Your task to perform on an android device: Search for seafood restaurants on Google Maps Image 0: 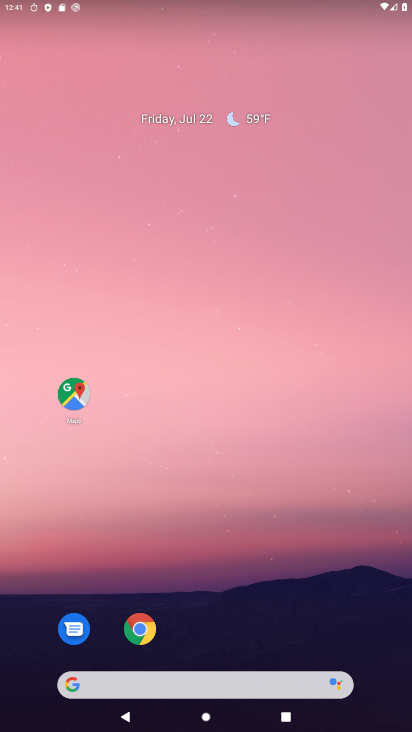
Step 0: drag from (241, 689) to (365, 0)
Your task to perform on an android device: Search for seafood restaurants on Google Maps Image 1: 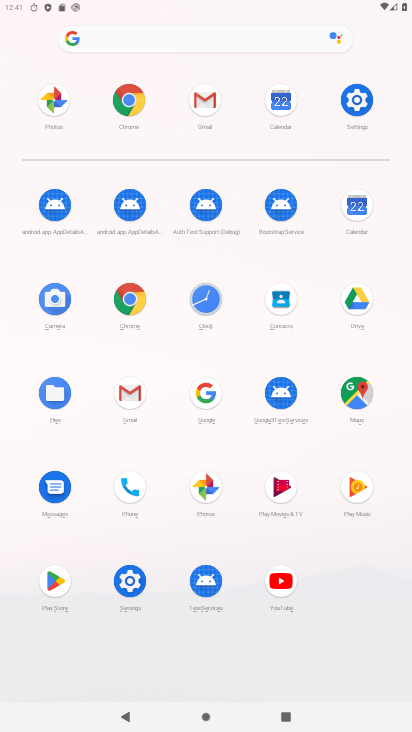
Step 1: click (357, 391)
Your task to perform on an android device: Search for seafood restaurants on Google Maps Image 2: 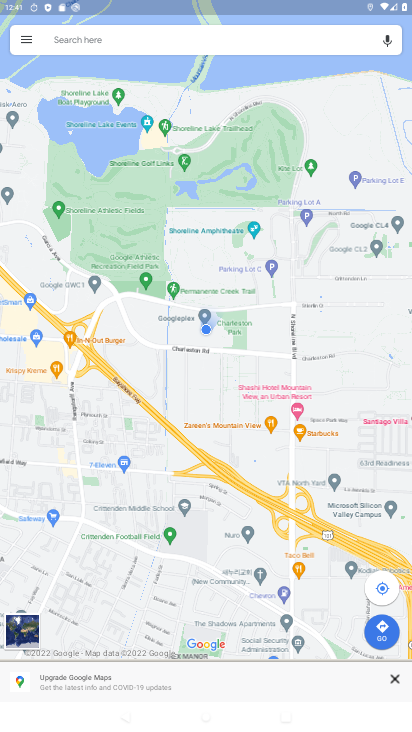
Step 2: click (227, 30)
Your task to perform on an android device: Search for seafood restaurants on Google Maps Image 3: 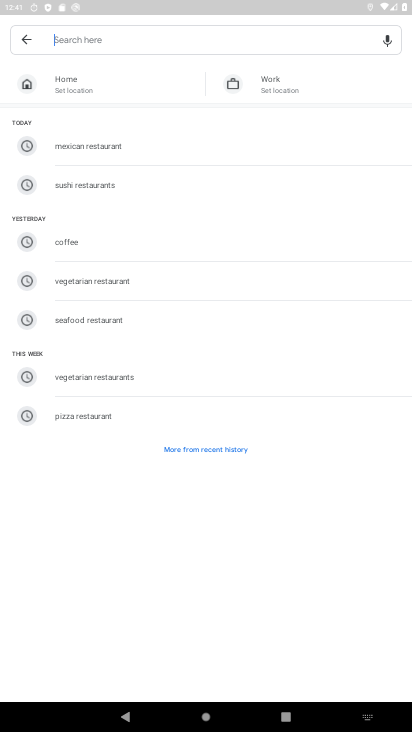
Step 3: click (127, 318)
Your task to perform on an android device: Search for seafood restaurants on Google Maps Image 4: 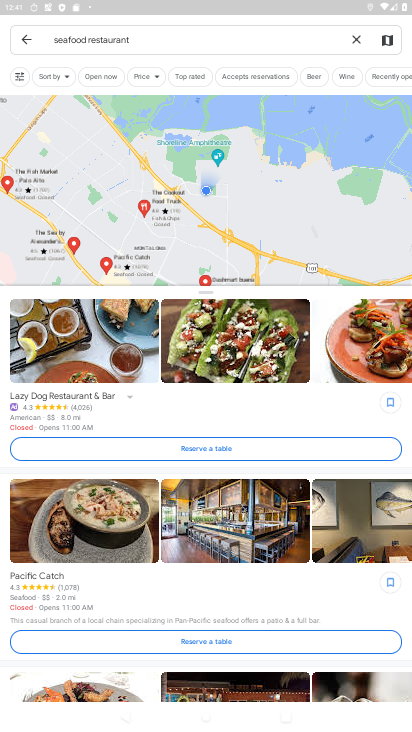
Step 4: task complete